Your task to perform on an android device: turn off translation in the chrome app Image 0: 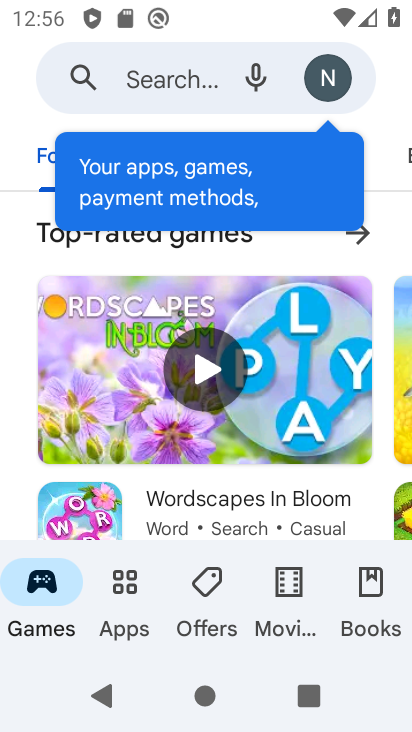
Step 0: press home button
Your task to perform on an android device: turn off translation in the chrome app Image 1: 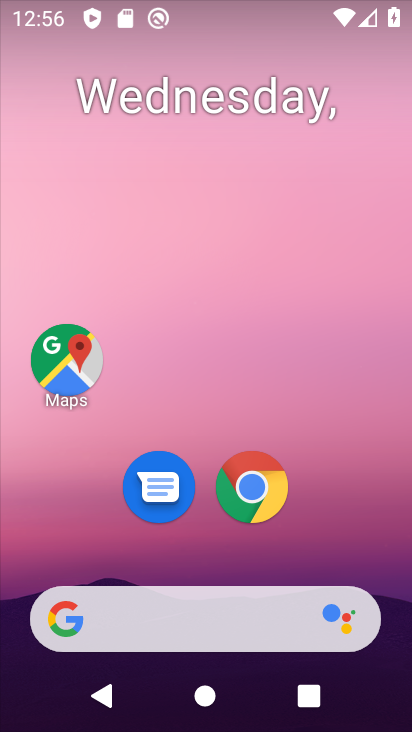
Step 1: click (266, 475)
Your task to perform on an android device: turn off translation in the chrome app Image 2: 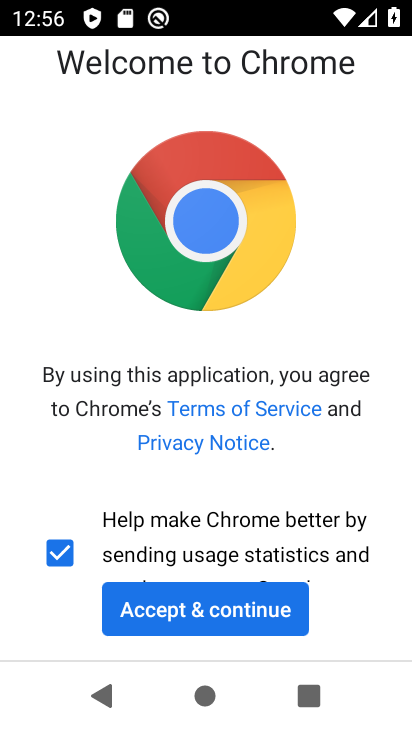
Step 2: click (231, 609)
Your task to perform on an android device: turn off translation in the chrome app Image 3: 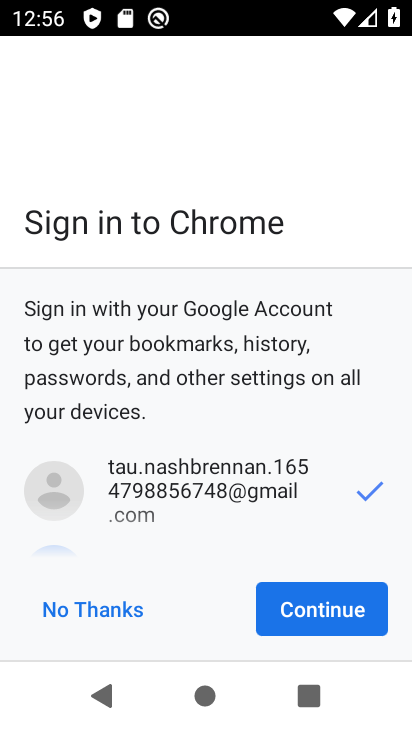
Step 3: click (284, 611)
Your task to perform on an android device: turn off translation in the chrome app Image 4: 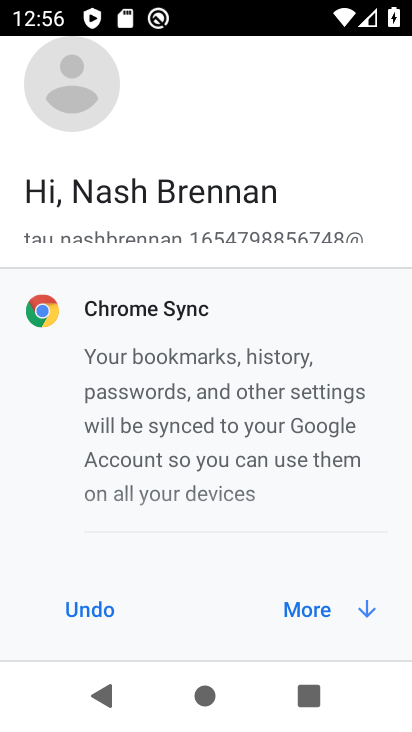
Step 4: click (284, 611)
Your task to perform on an android device: turn off translation in the chrome app Image 5: 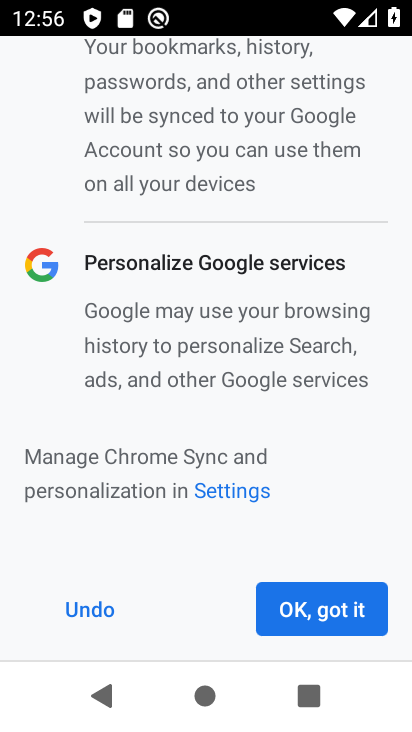
Step 5: click (284, 611)
Your task to perform on an android device: turn off translation in the chrome app Image 6: 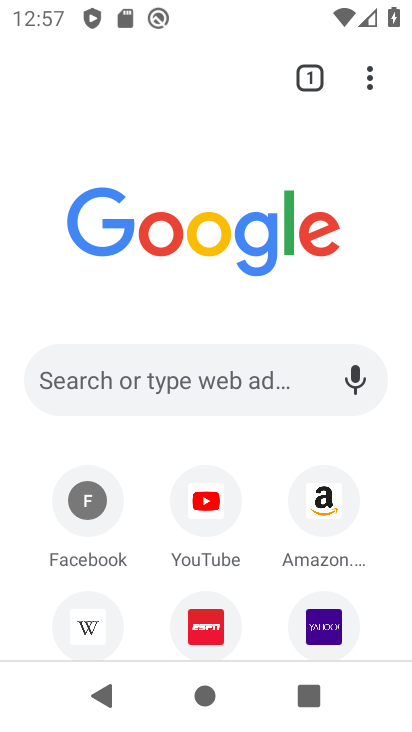
Step 6: click (369, 80)
Your task to perform on an android device: turn off translation in the chrome app Image 7: 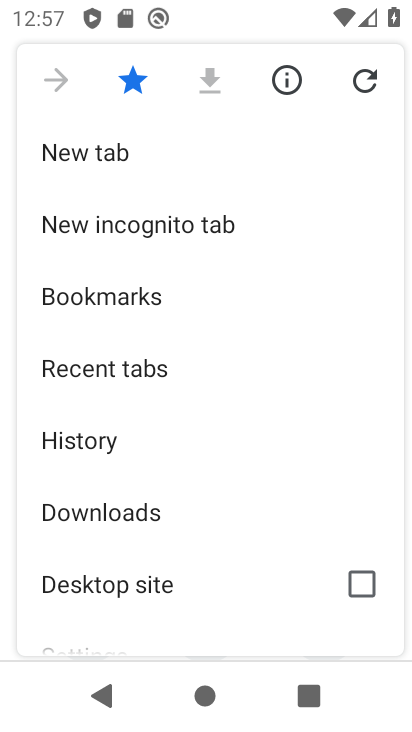
Step 7: drag from (211, 524) to (237, 183)
Your task to perform on an android device: turn off translation in the chrome app Image 8: 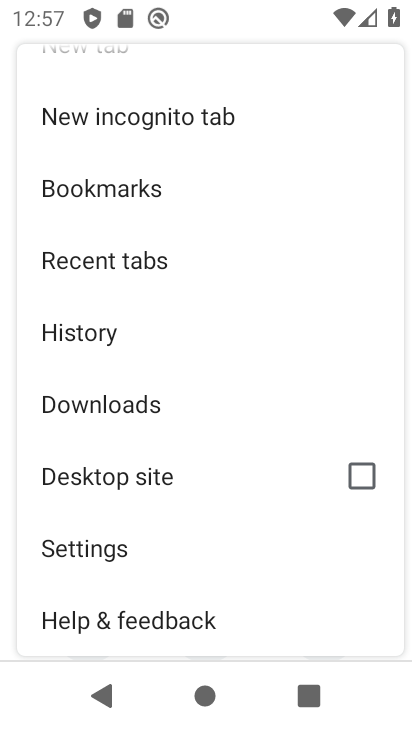
Step 8: click (122, 541)
Your task to perform on an android device: turn off translation in the chrome app Image 9: 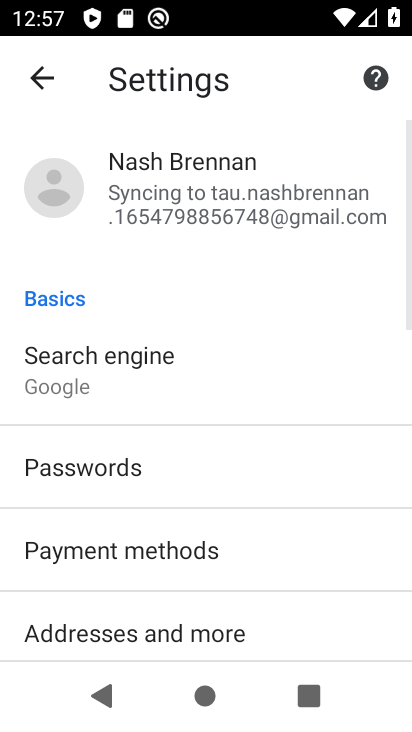
Step 9: drag from (268, 536) to (269, 191)
Your task to perform on an android device: turn off translation in the chrome app Image 10: 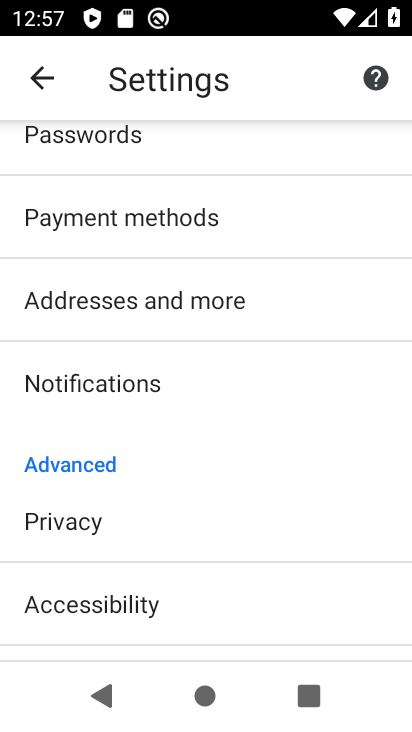
Step 10: drag from (258, 412) to (251, 164)
Your task to perform on an android device: turn off translation in the chrome app Image 11: 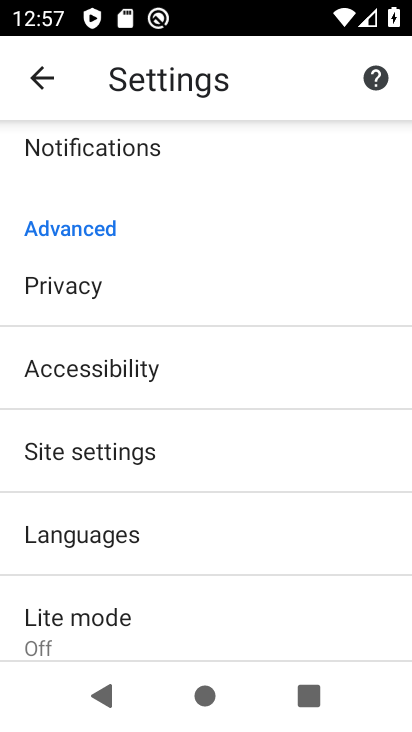
Step 11: click (199, 539)
Your task to perform on an android device: turn off translation in the chrome app Image 12: 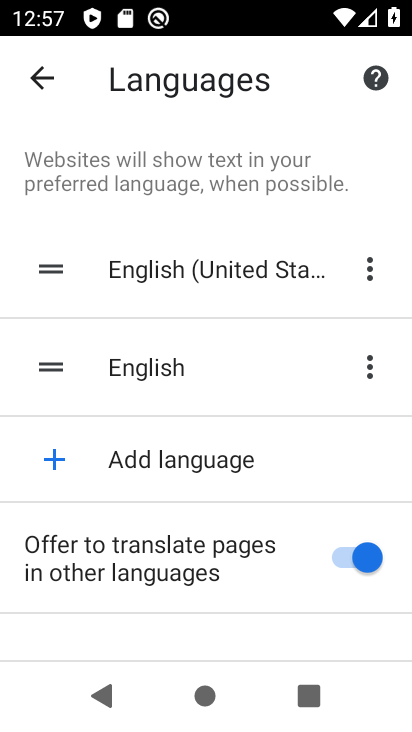
Step 12: click (343, 551)
Your task to perform on an android device: turn off translation in the chrome app Image 13: 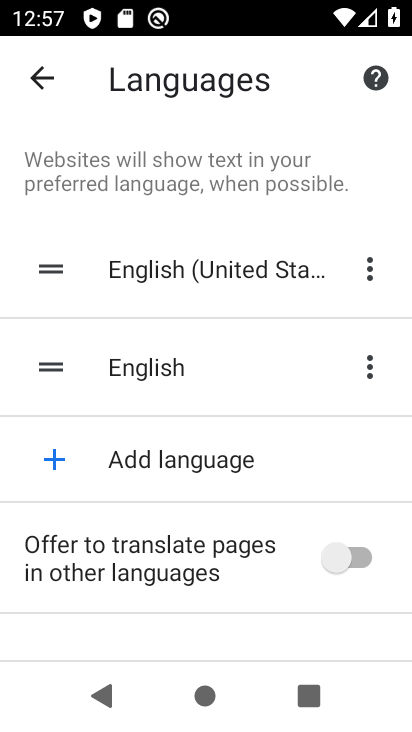
Step 13: task complete